Your task to perform on an android device: turn on bluetooth scan Image 0: 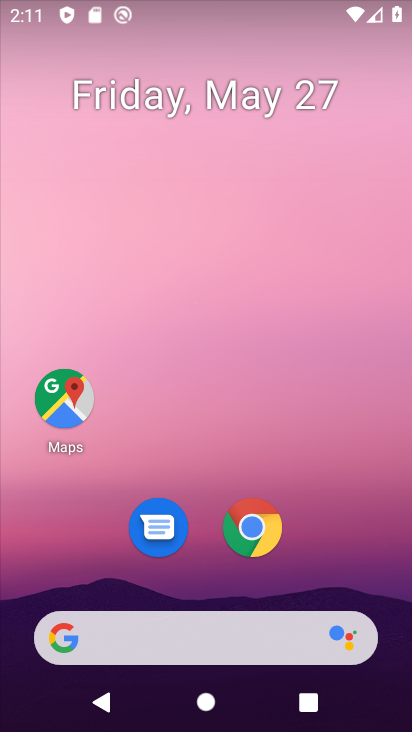
Step 0: drag from (267, 597) to (336, 234)
Your task to perform on an android device: turn on bluetooth scan Image 1: 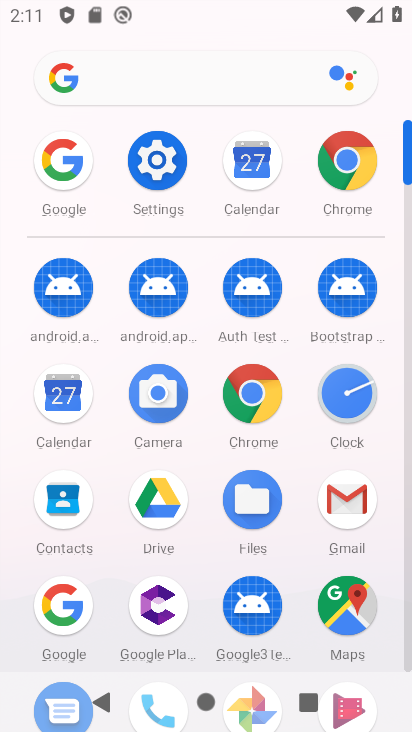
Step 1: click (155, 171)
Your task to perform on an android device: turn on bluetooth scan Image 2: 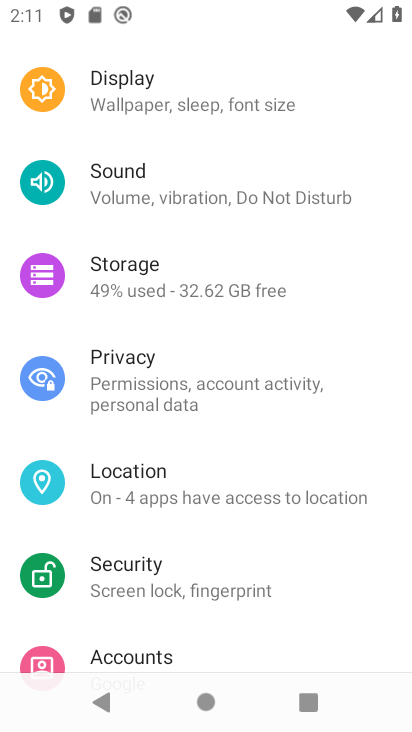
Step 2: drag from (175, 647) to (223, 227)
Your task to perform on an android device: turn on bluetooth scan Image 3: 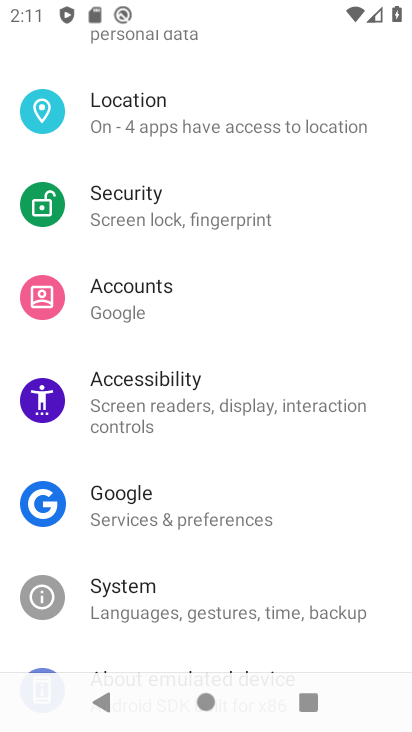
Step 3: click (155, 123)
Your task to perform on an android device: turn on bluetooth scan Image 4: 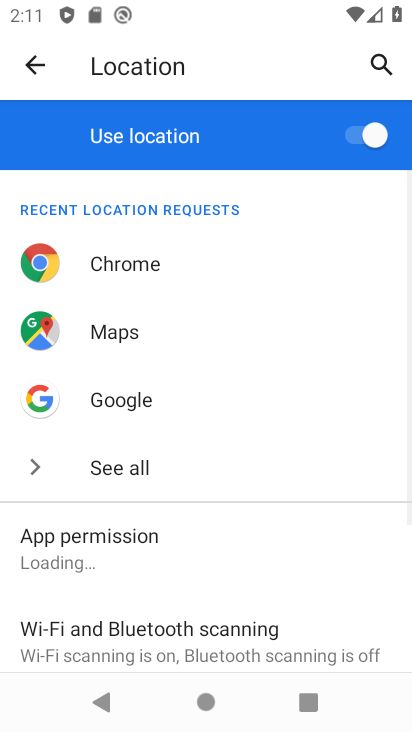
Step 4: click (179, 643)
Your task to perform on an android device: turn on bluetooth scan Image 5: 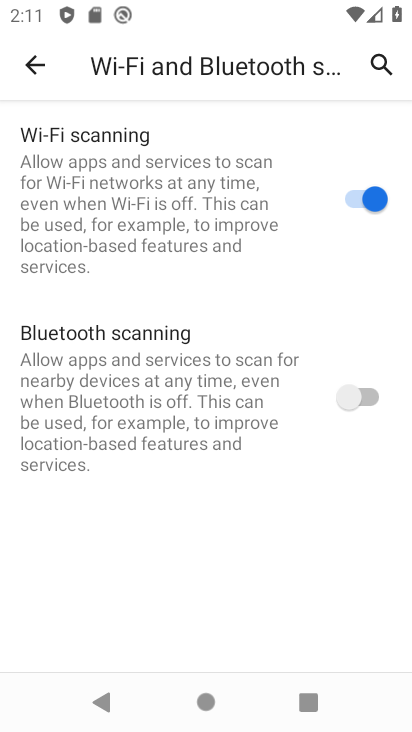
Step 5: click (370, 391)
Your task to perform on an android device: turn on bluetooth scan Image 6: 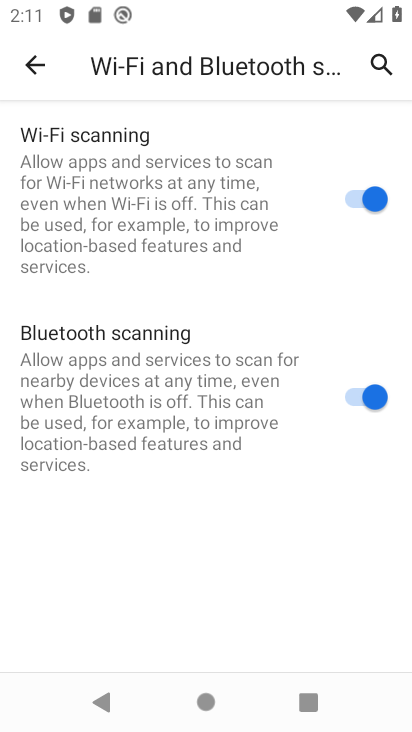
Step 6: task complete